Your task to perform on an android device: Go to sound settings Image 0: 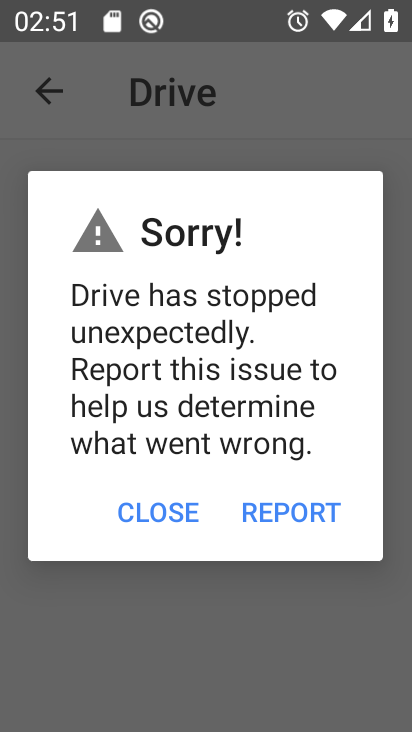
Step 0: press home button
Your task to perform on an android device: Go to sound settings Image 1: 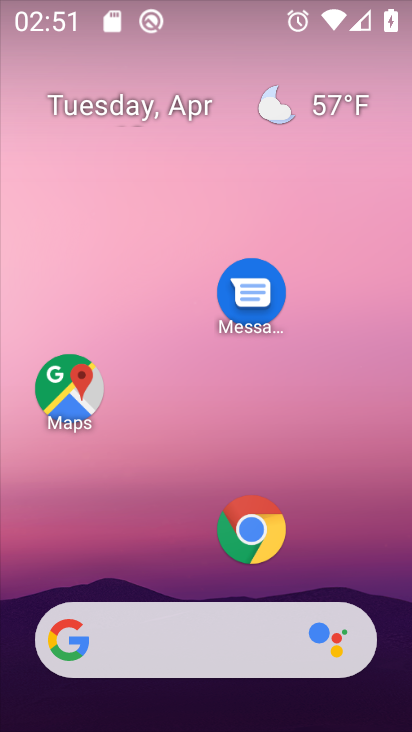
Step 1: drag from (153, 487) to (205, 163)
Your task to perform on an android device: Go to sound settings Image 2: 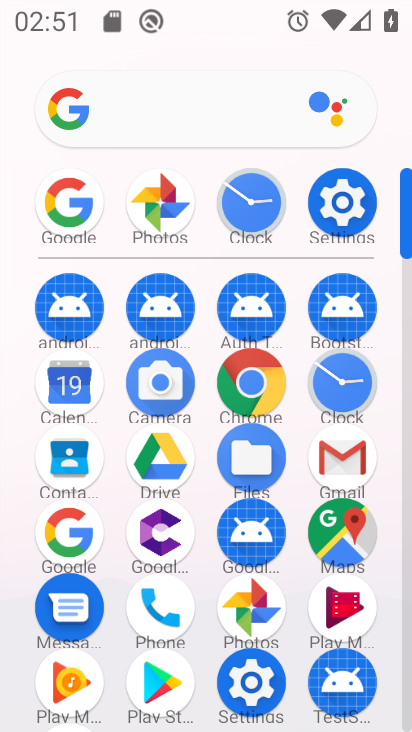
Step 2: click (342, 196)
Your task to perform on an android device: Go to sound settings Image 3: 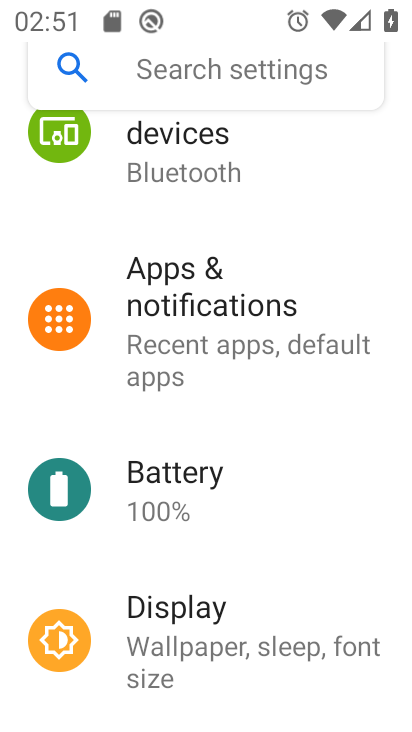
Step 3: drag from (262, 550) to (293, 191)
Your task to perform on an android device: Go to sound settings Image 4: 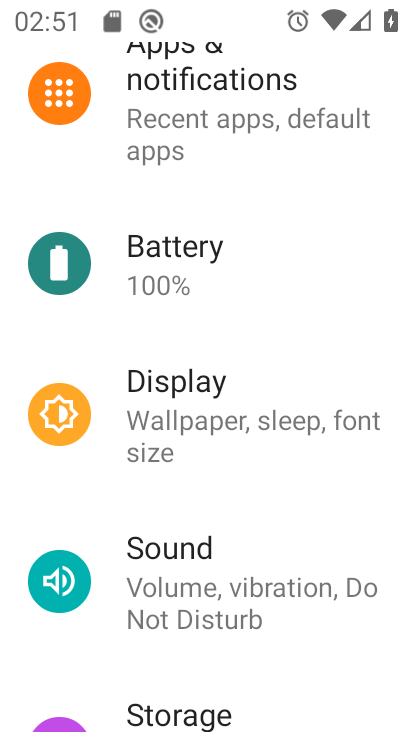
Step 4: click (179, 575)
Your task to perform on an android device: Go to sound settings Image 5: 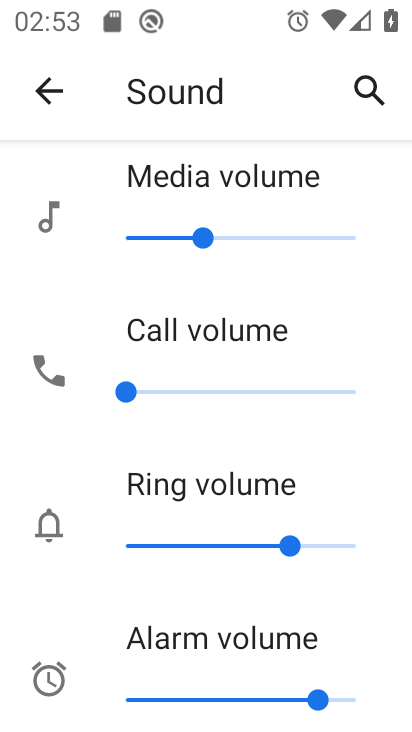
Step 5: task complete